Your task to perform on an android device: Open calendar and show me the fourth week of next month Image 0: 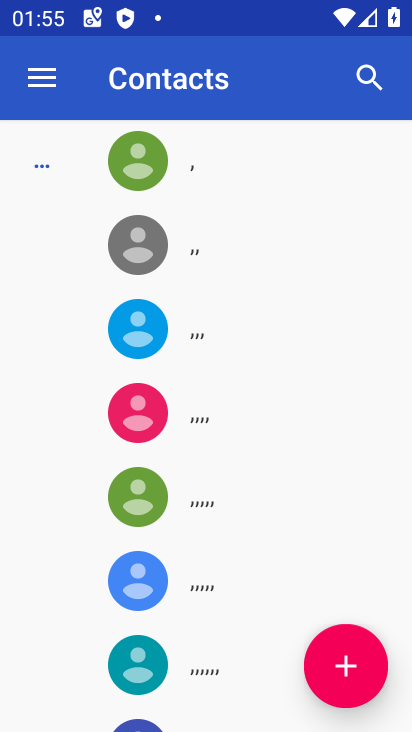
Step 0: press home button
Your task to perform on an android device: Open calendar and show me the fourth week of next month Image 1: 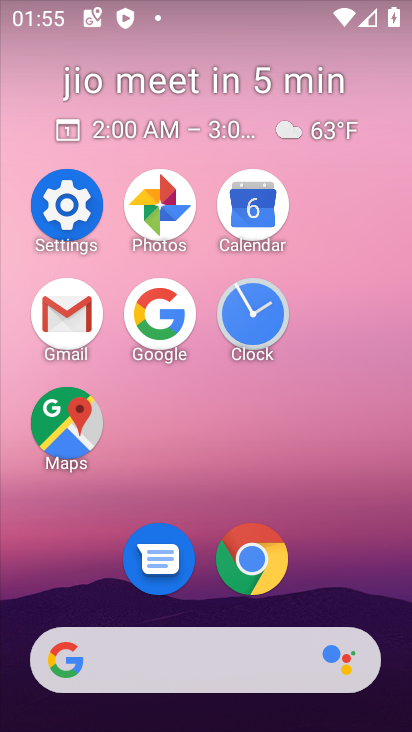
Step 1: click (230, 203)
Your task to perform on an android device: Open calendar and show me the fourth week of next month Image 2: 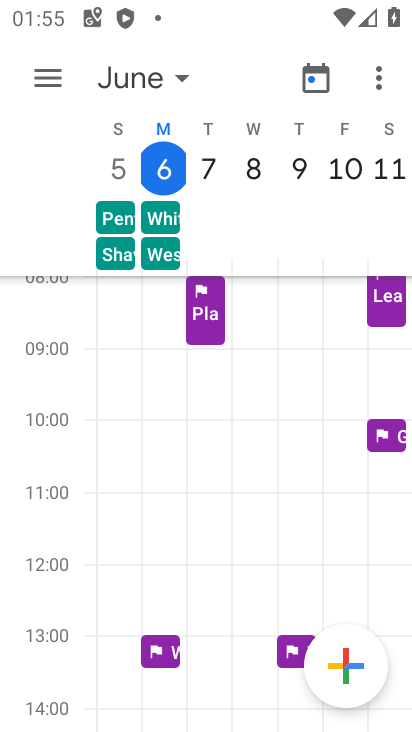
Step 2: click (46, 90)
Your task to perform on an android device: Open calendar and show me the fourth week of next month Image 3: 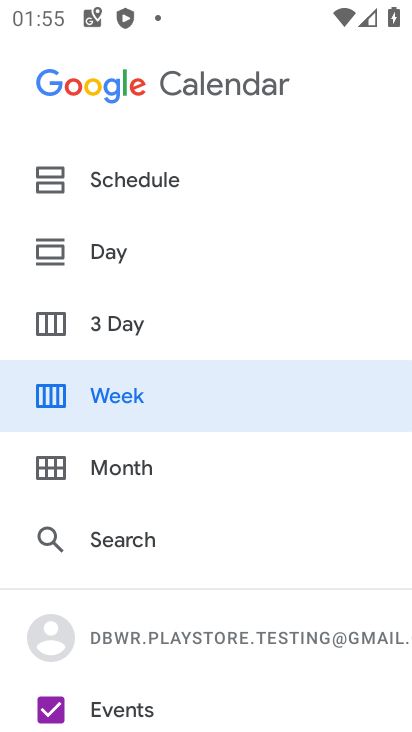
Step 3: click (154, 406)
Your task to perform on an android device: Open calendar and show me the fourth week of next month Image 4: 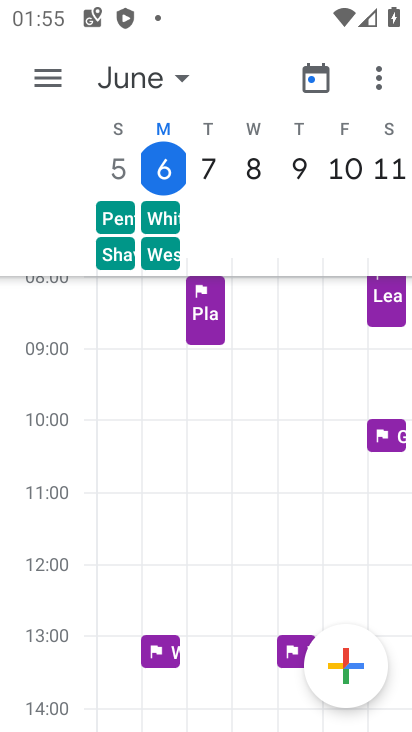
Step 4: click (166, 86)
Your task to perform on an android device: Open calendar and show me the fourth week of next month Image 5: 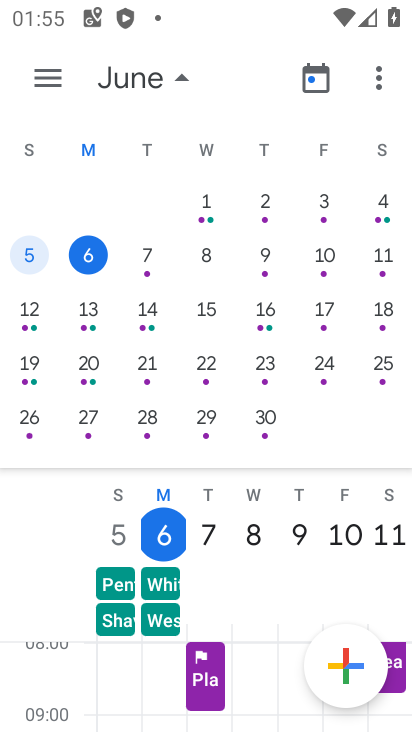
Step 5: drag from (401, 296) to (5, 313)
Your task to perform on an android device: Open calendar and show me the fourth week of next month Image 6: 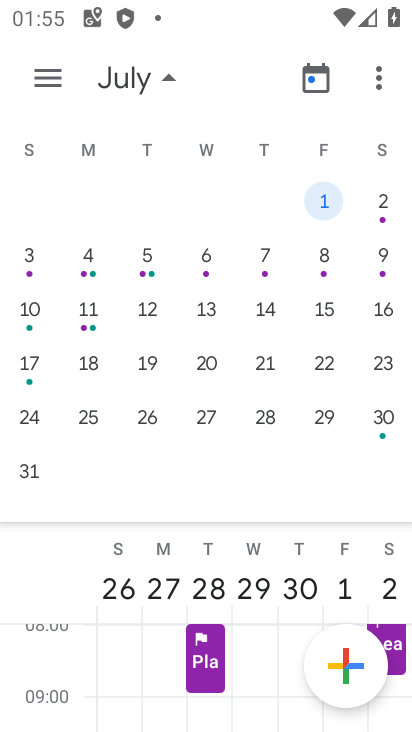
Step 6: click (52, 64)
Your task to perform on an android device: Open calendar and show me the fourth week of next month Image 7: 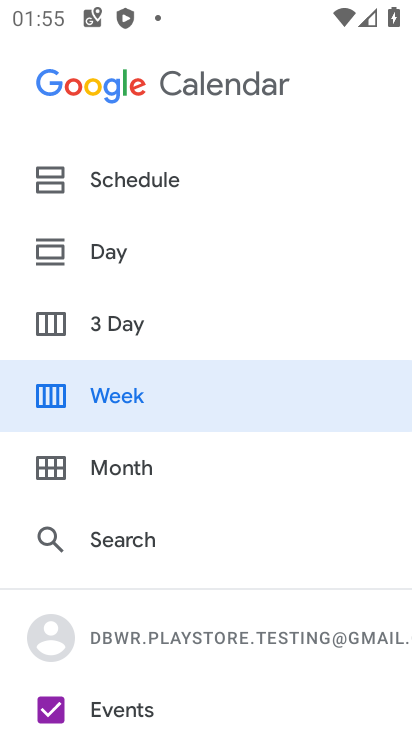
Step 7: click (131, 388)
Your task to perform on an android device: Open calendar and show me the fourth week of next month Image 8: 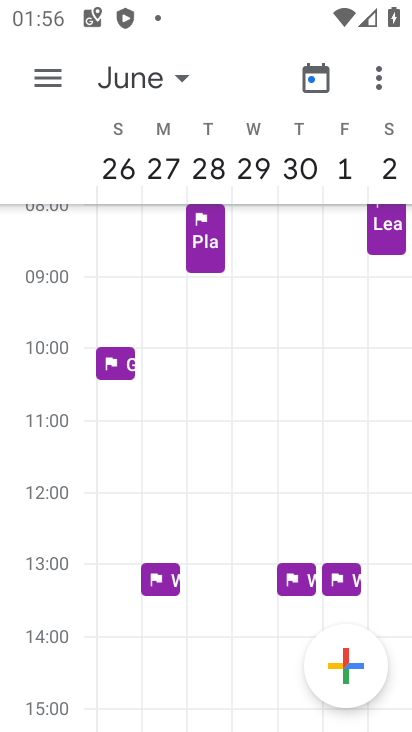
Step 8: task complete